Your task to perform on an android device: Open eBay Image 0: 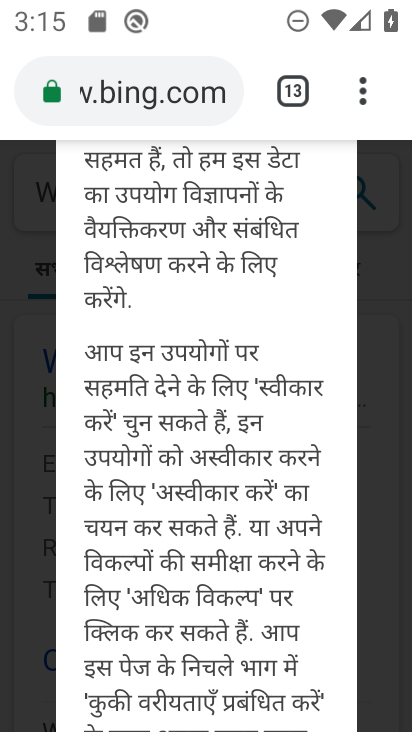
Step 0: click (372, 95)
Your task to perform on an android device: Open eBay Image 1: 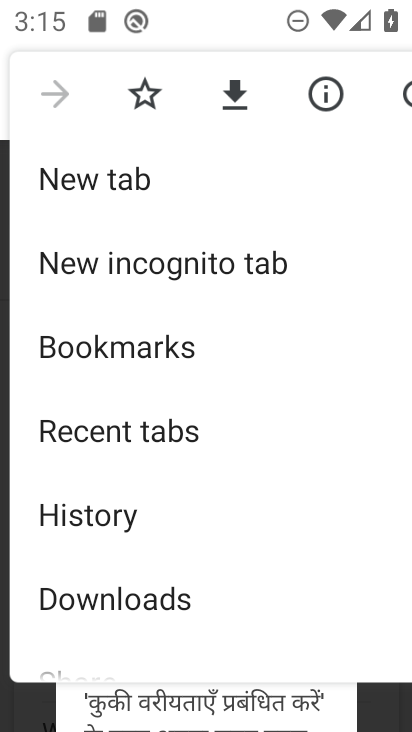
Step 1: click (89, 181)
Your task to perform on an android device: Open eBay Image 2: 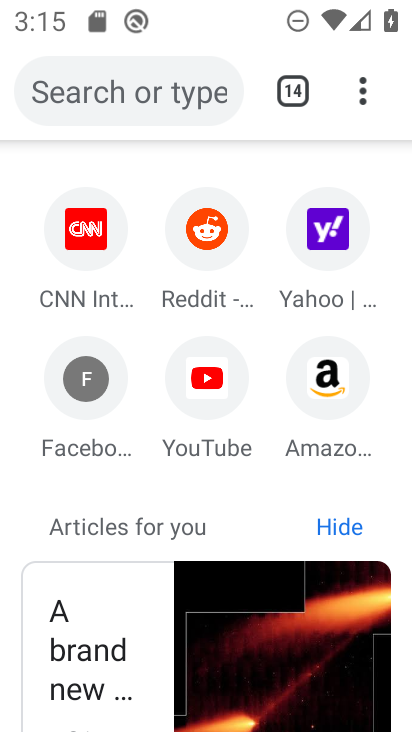
Step 2: click (171, 98)
Your task to perform on an android device: Open eBay Image 3: 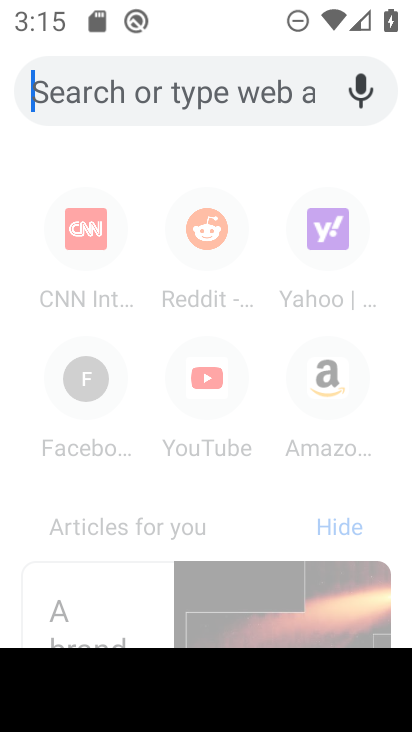
Step 3: type "eBay"
Your task to perform on an android device: Open eBay Image 4: 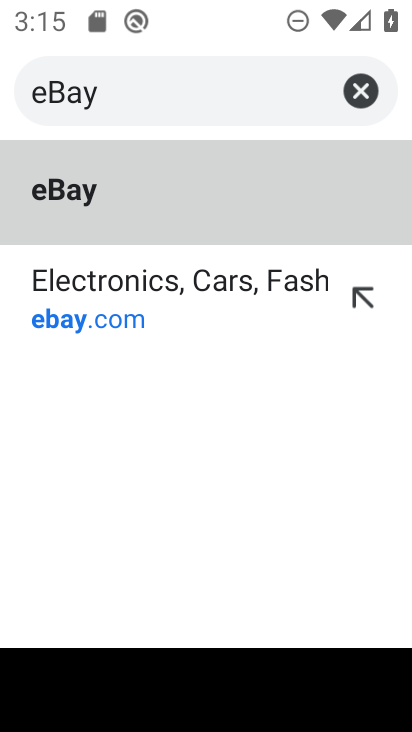
Step 4: click (67, 185)
Your task to perform on an android device: Open eBay Image 5: 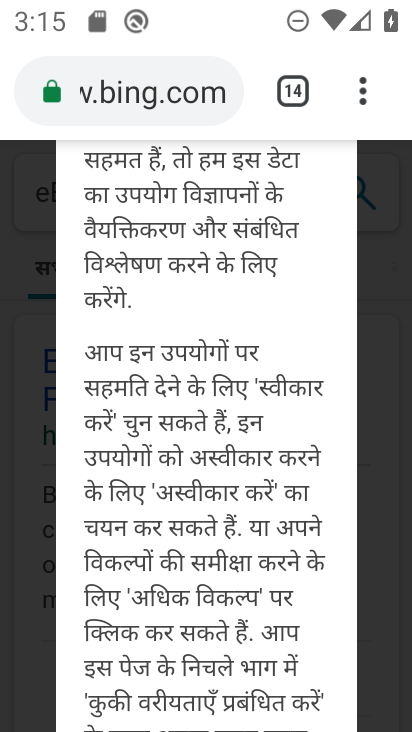
Step 5: task complete